Your task to perform on an android device: Go to location settings Image 0: 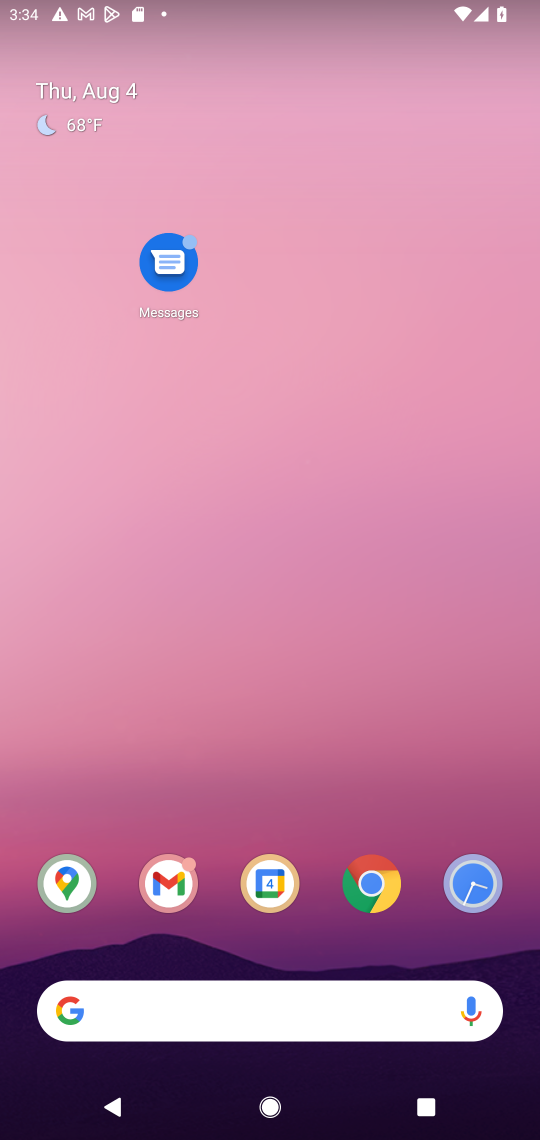
Step 0: drag from (329, 967) to (337, 102)
Your task to perform on an android device: Go to location settings Image 1: 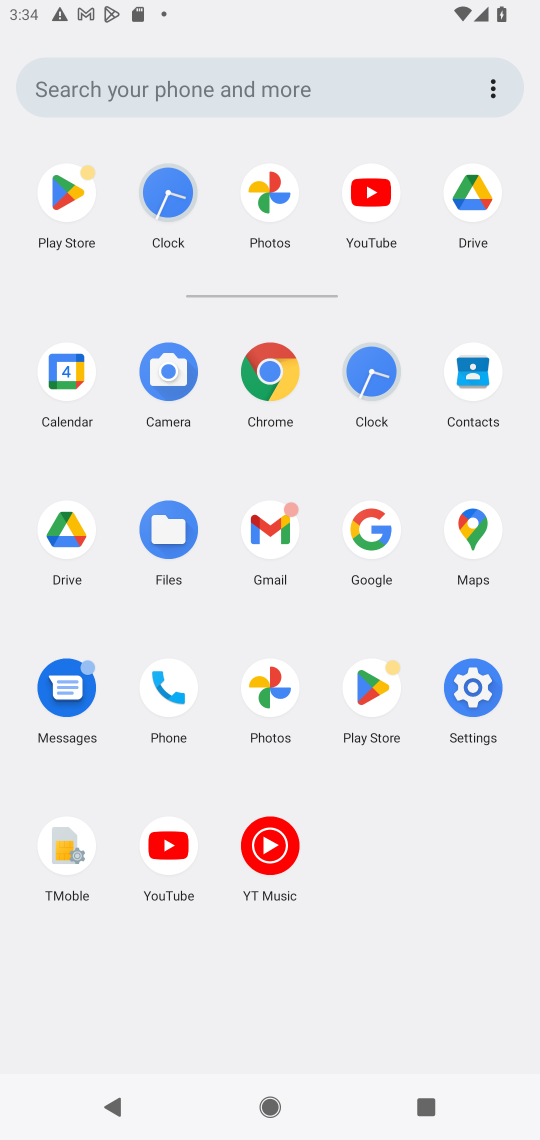
Step 1: click (477, 682)
Your task to perform on an android device: Go to location settings Image 2: 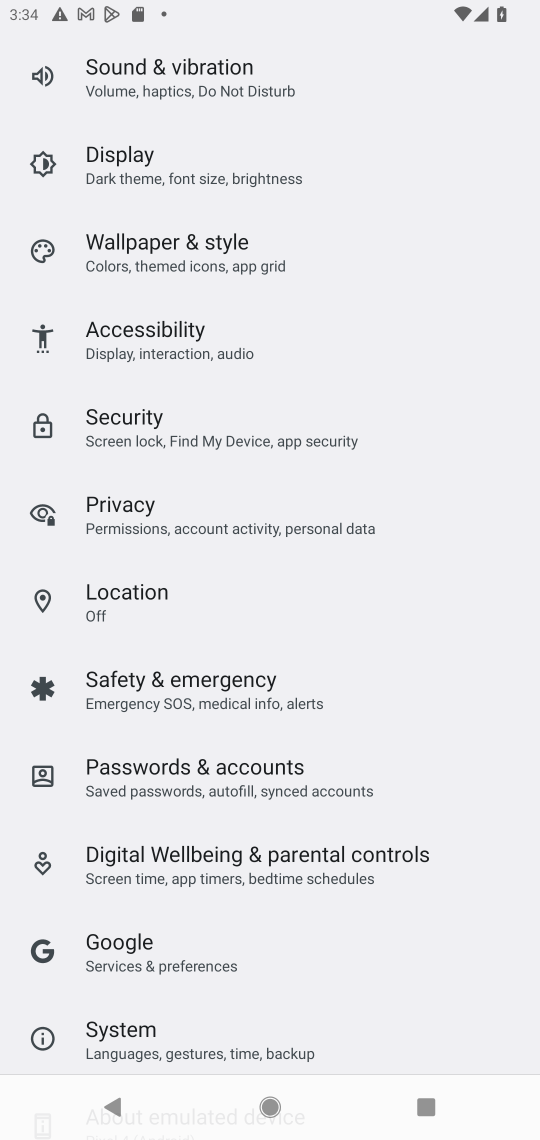
Step 2: click (122, 583)
Your task to perform on an android device: Go to location settings Image 3: 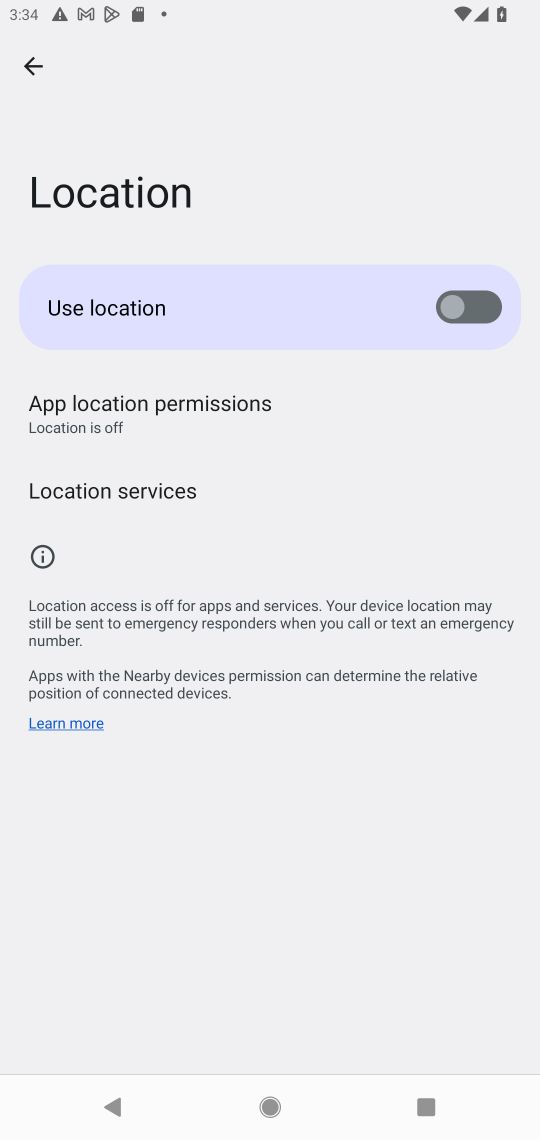
Step 3: task complete